Your task to perform on an android device: check data usage Image 0: 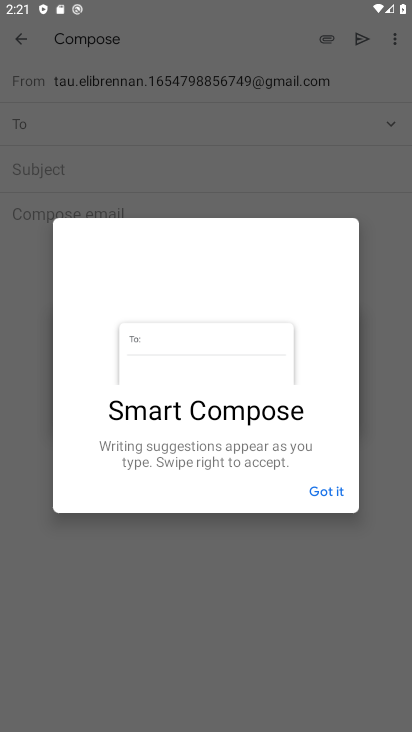
Step 0: press home button
Your task to perform on an android device: check data usage Image 1: 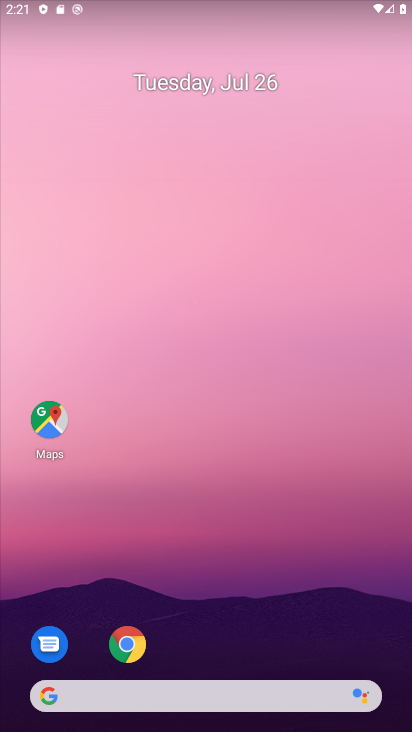
Step 1: drag from (259, 610) to (293, 172)
Your task to perform on an android device: check data usage Image 2: 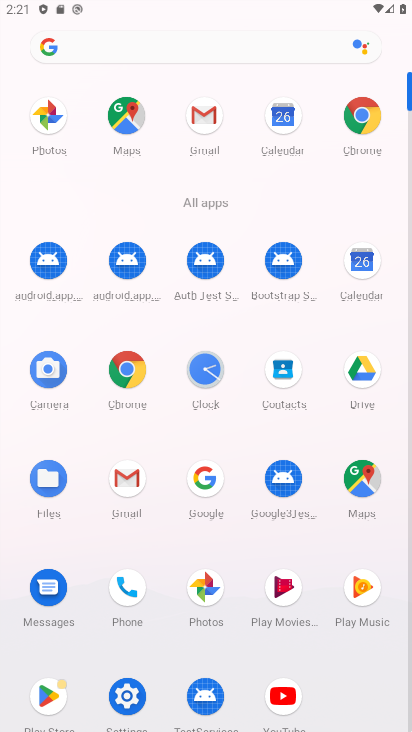
Step 2: click (133, 693)
Your task to perform on an android device: check data usage Image 3: 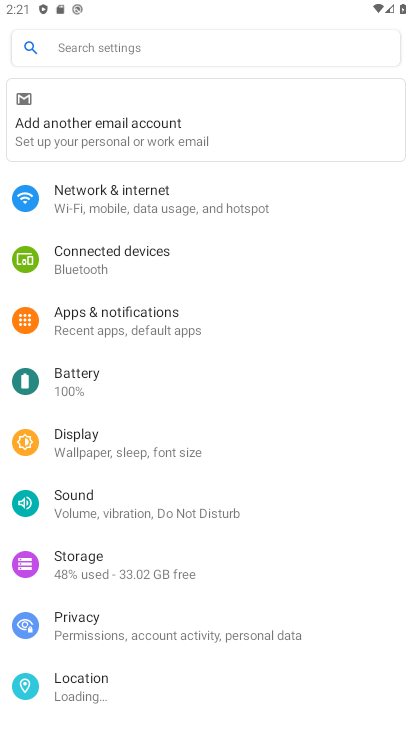
Step 3: click (155, 193)
Your task to perform on an android device: check data usage Image 4: 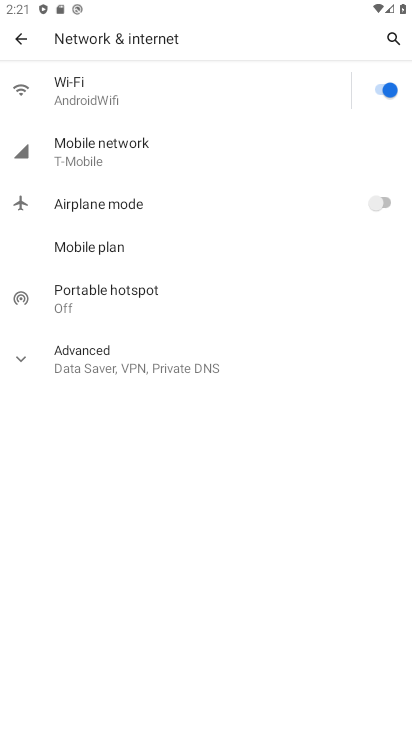
Step 4: click (127, 138)
Your task to perform on an android device: check data usage Image 5: 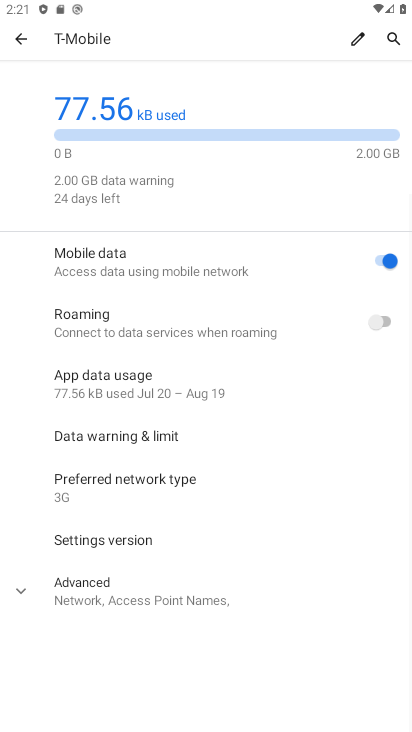
Step 5: task complete